Your task to perform on an android device: Open the map Image 0: 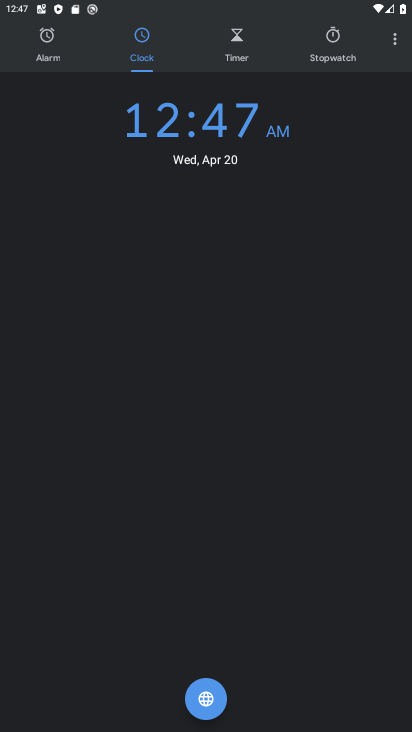
Step 0: press home button
Your task to perform on an android device: Open the map Image 1: 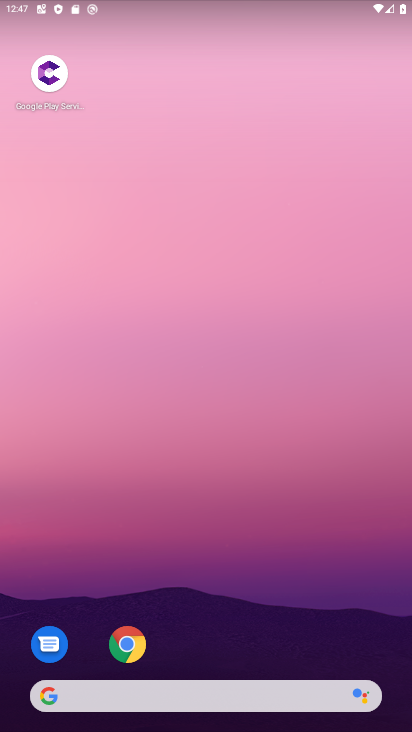
Step 1: drag from (218, 329) to (238, 43)
Your task to perform on an android device: Open the map Image 2: 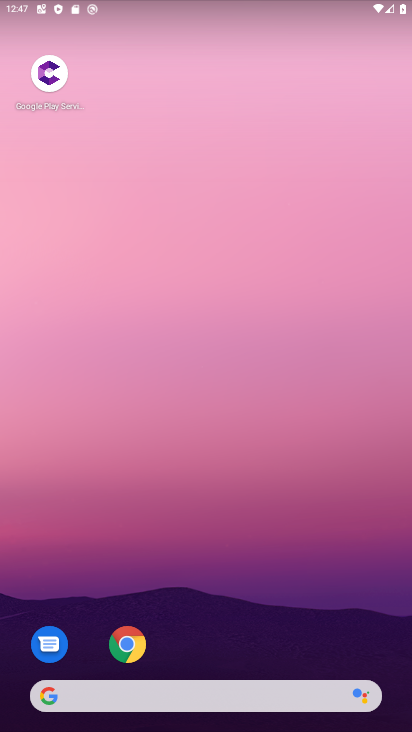
Step 2: drag from (213, 466) to (240, 56)
Your task to perform on an android device: Open the map Image 3: 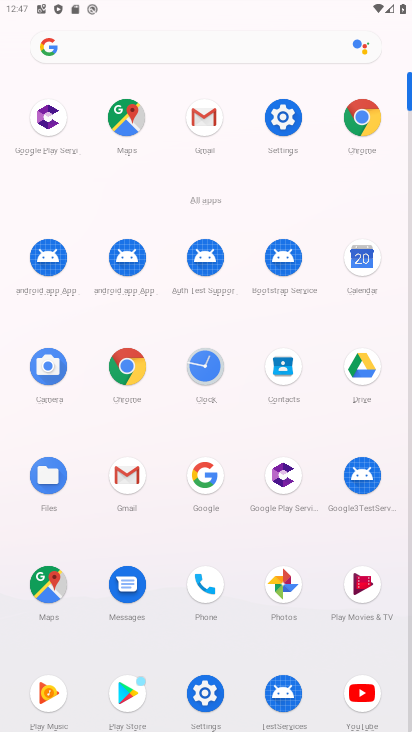
Step 3: click (133, 120)
Your task to perform on an android device: Open the map Image 4: 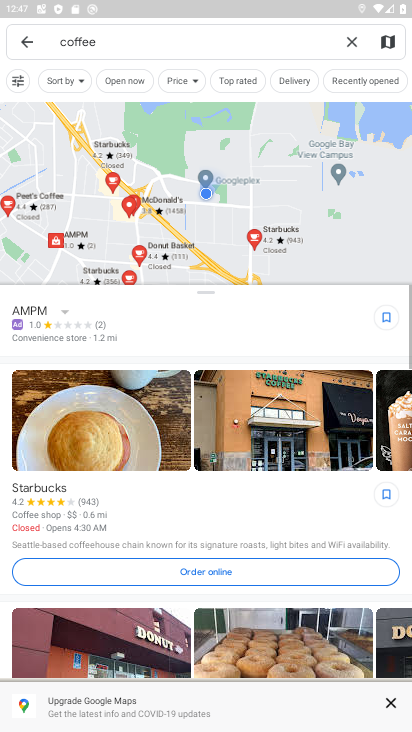
Step 4: task complete